Your task to perform on an android device: Set the phone to "Do not disturb". Image 0: 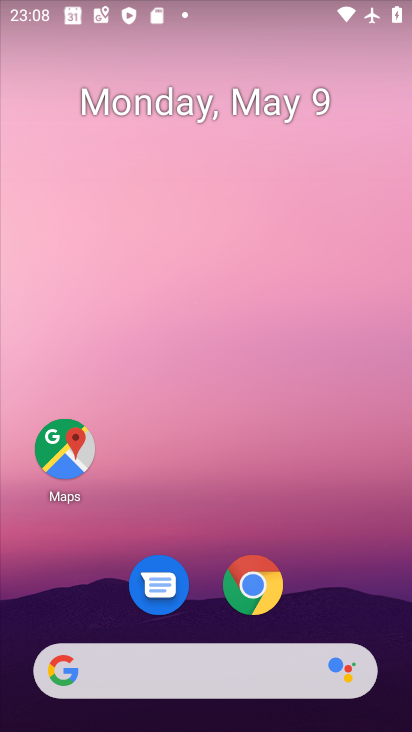
Step 0: drag from (323, 535) to (320, 59)
Your task to perform on an android device: Set the phone to "Do not disturb". Image 1: 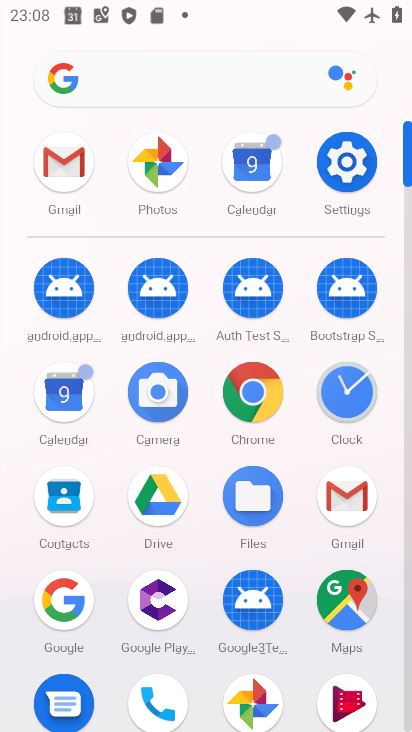
Step 1: click (350, 161)
Your task to perform on an android device: Set the phone to "Do not disturb". Image 2: 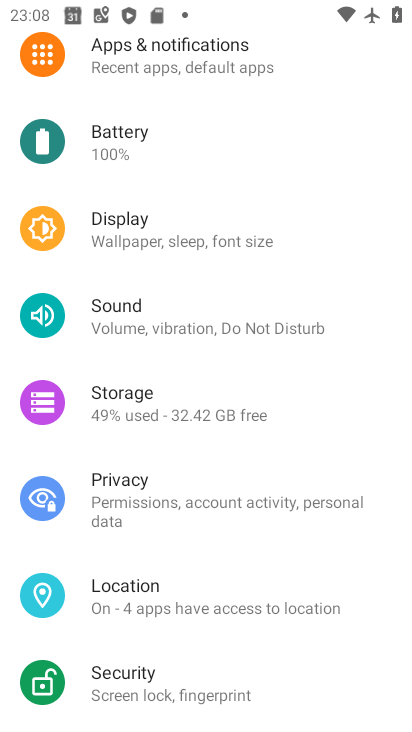
Step 2: click (229, 315)
Your task to perform on an android device: Set the phone to "Do not disturb". Image 3: 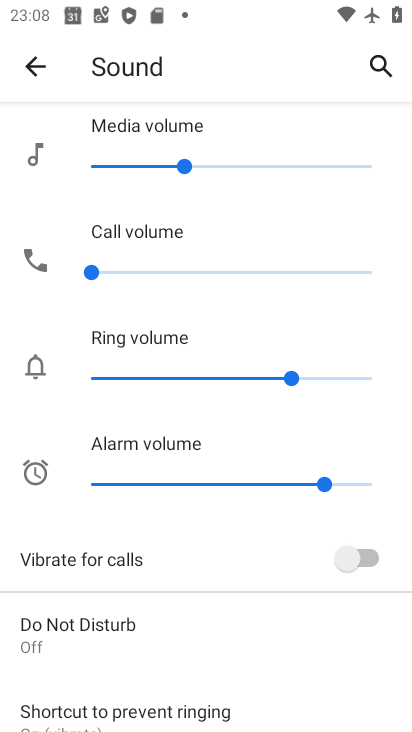
Step 3: click (124, 623)
Your task to perform on an android device: Set the phone to "Do not disturb". Image 4: 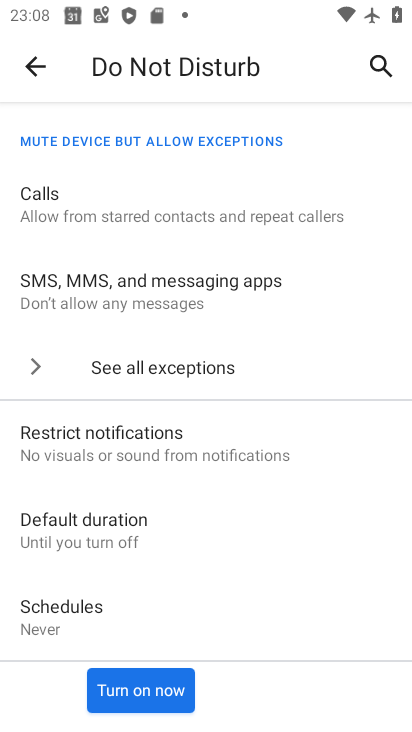
Step 4: click (131, 682)
Your task to perform on an android device: Set the phone to "Do not disturb". Image 5: 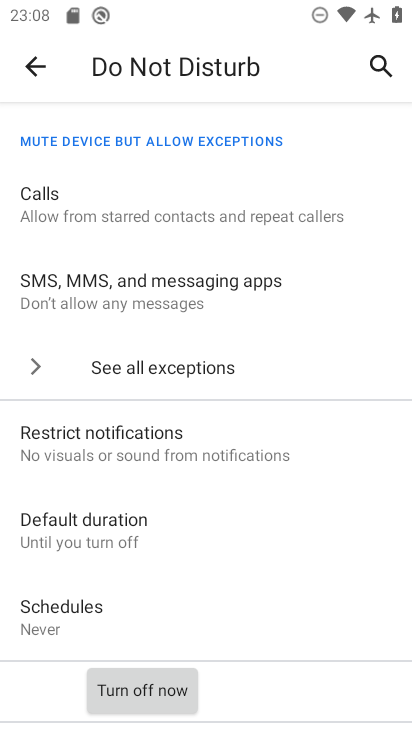
Step 5: task complete